Your task to perform on an android device: add a contact Image 0: 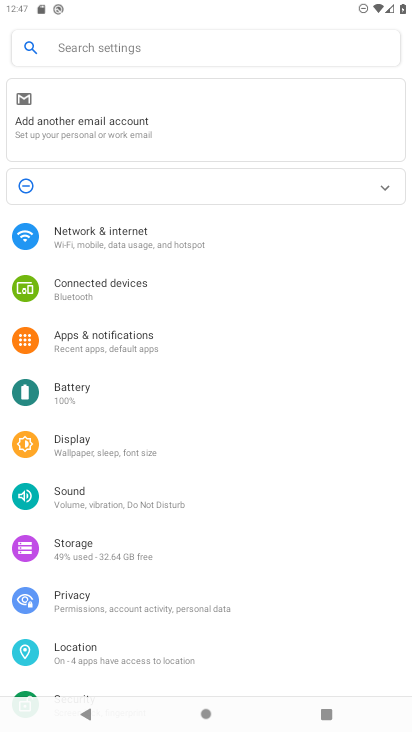
Step 0: press home button
Your task to perform on an android device: add a contact Image 1: 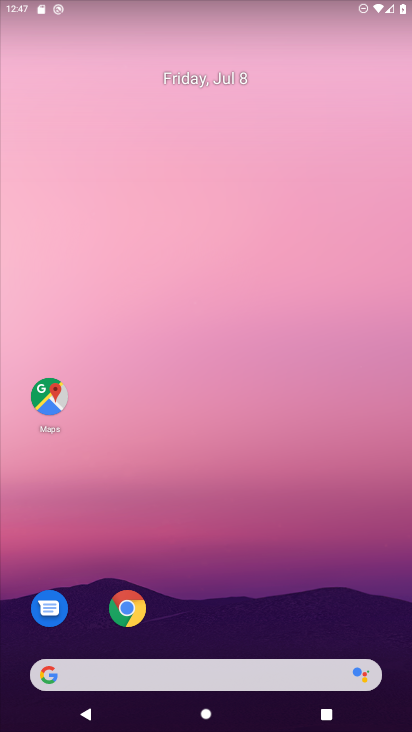
Step 1: drag from (246, 713) to (243, 151)
Your task to perform on an android device: add a contact Image 2: 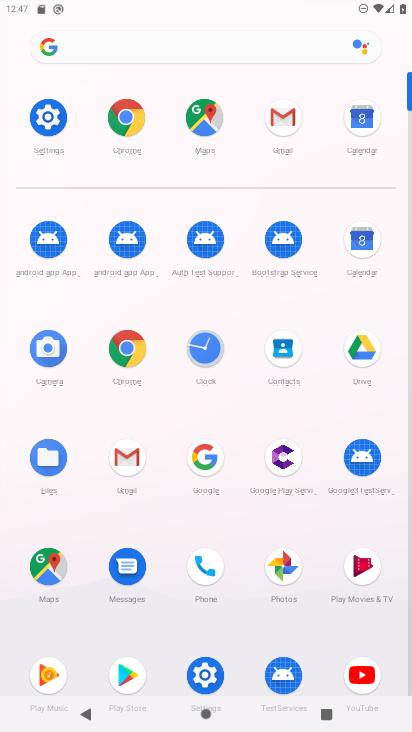
Step 2: click (287, 348)
Your task to perform on an android device: add a contact Image 3: 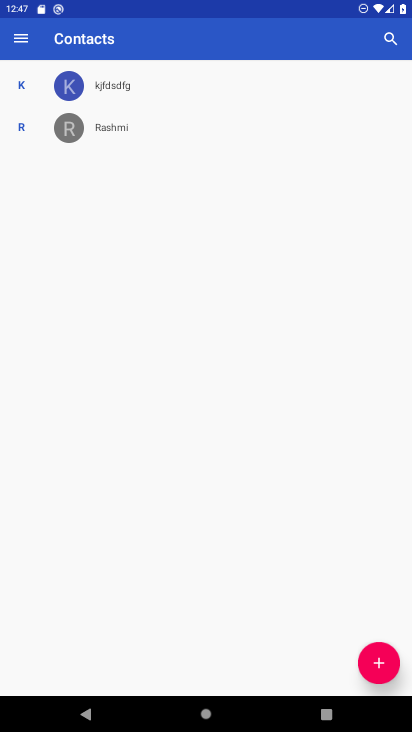
Step 3: click (379, 659)
Your task to perform on an android device: add a contact Image 4: 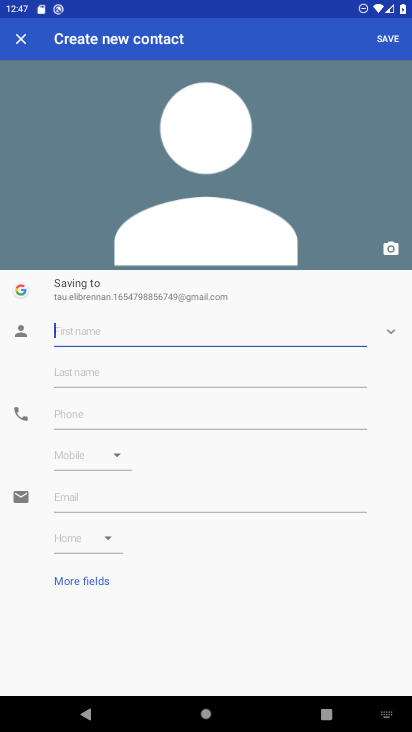
Step 4: type "skin walker "
Your task to perform on an android device: add a contact Image 5: 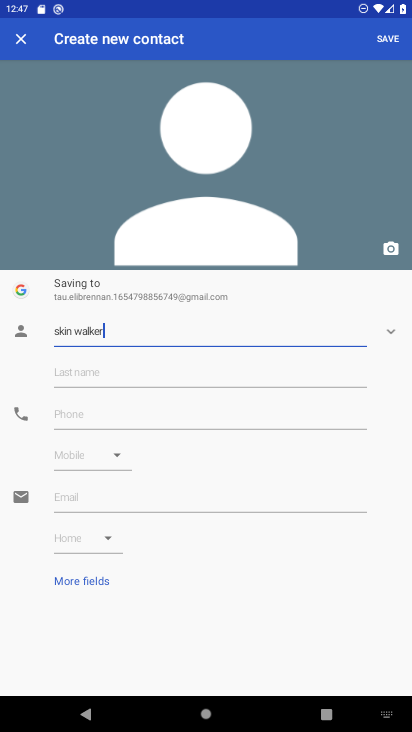
Step 5: click (100, 401)
Your task to perform on an android device: add a contact Image 6: 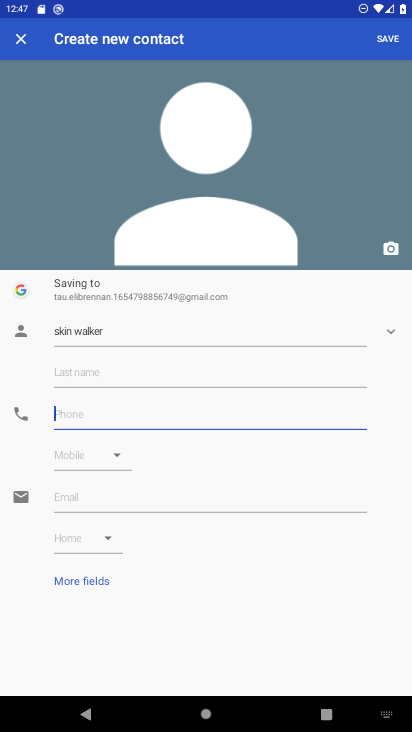
Step 6: type "9898987676"
Your task to perform on an android device: add a contact Image 7: 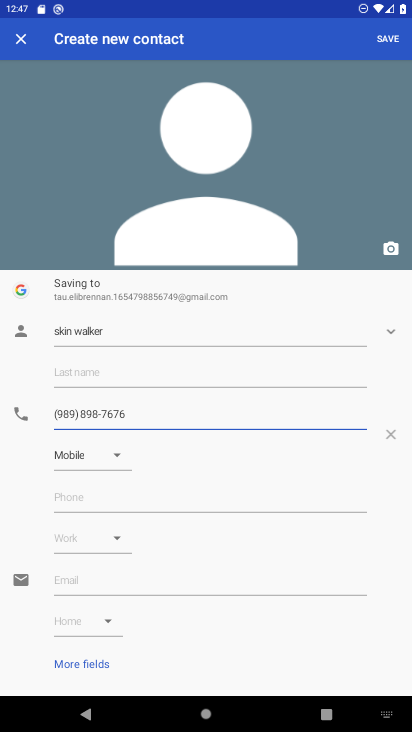
Step 7: click (395, 34)
Your task to perform on an android device: add a contact Image 8: 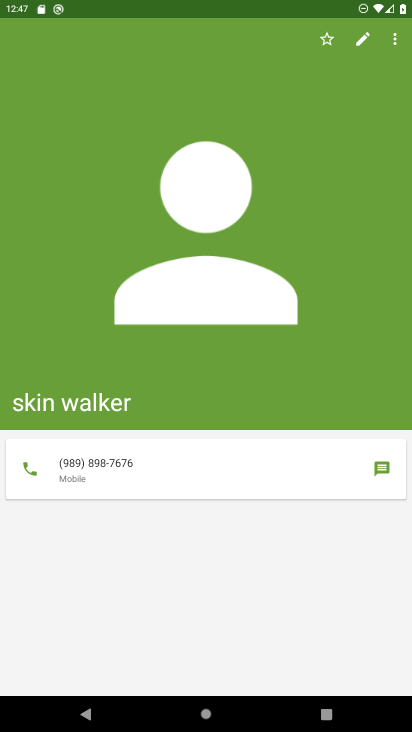
Step 8: task complete